Your task to perform on an android device: Open Chrome and go to the settings page Image 0: 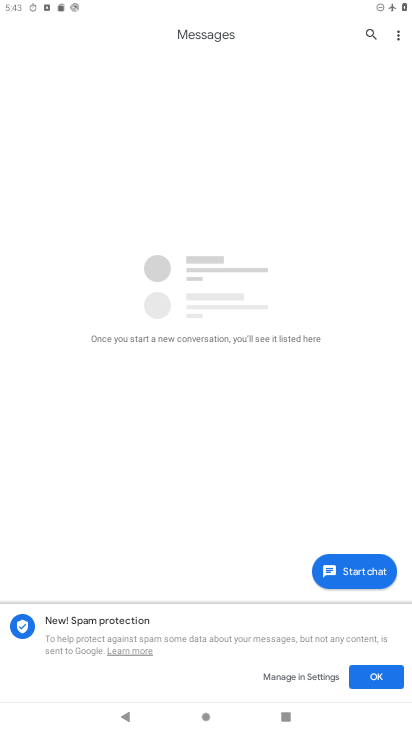
Step 0: press home button
Your task to perform on an android device: Open Chrome and go to the settings page Image 1: 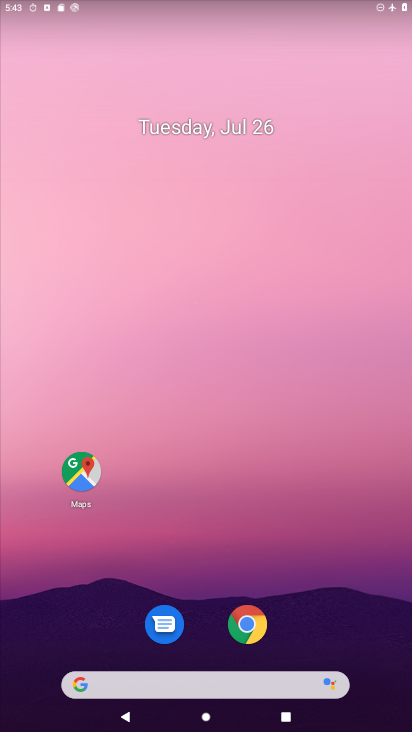
Step 1: drag from (230, 671) to (261, 2)
Your task to perform on an android device: Open Chrome and go to the settings page Image 2: 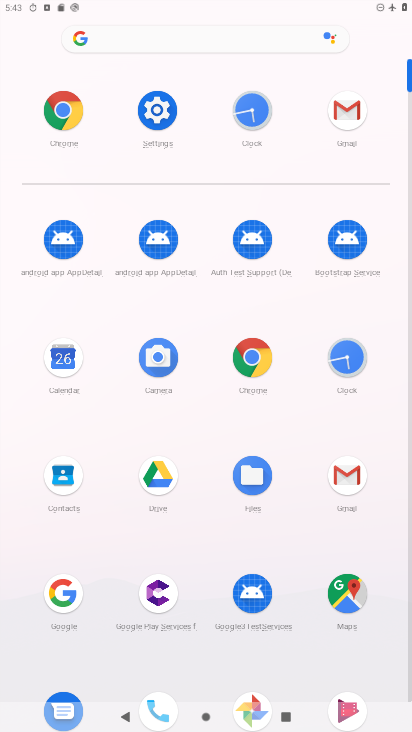
Step 2: click (253, 352)
Your task to perform on an android device: Open Chrome and go to the settings page Image 3: 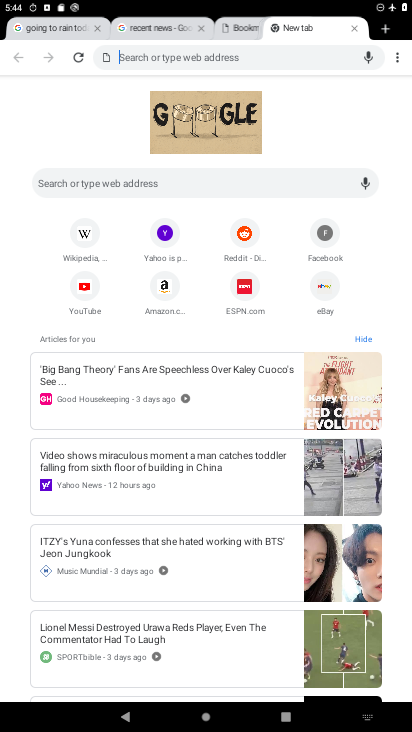
Step 3: task complete